Your task to perform on an android device: Open the map Image 0: 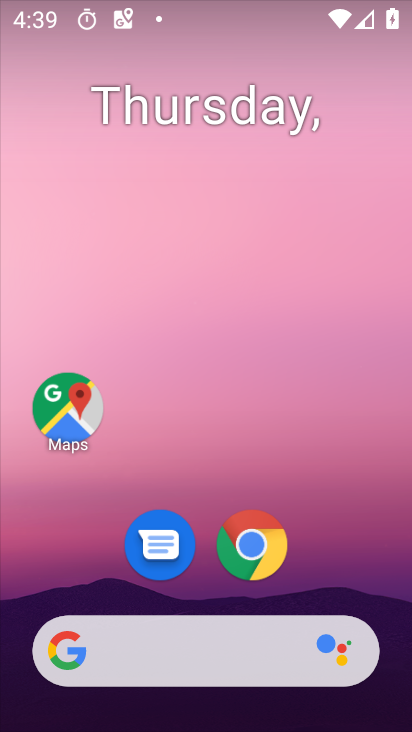
Step 0: drag from (216, 573) to (202, 137)
Your task to perform on an android device: Open the map Image 1: 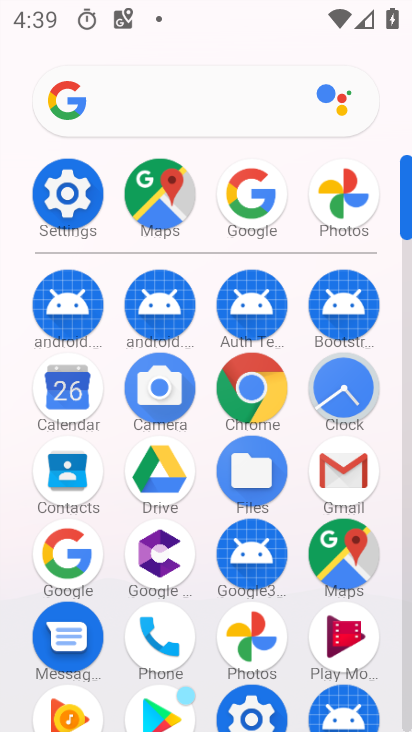
Step 1: click (344, 550)
Your task to perform on an android device: Open the map Image 2: 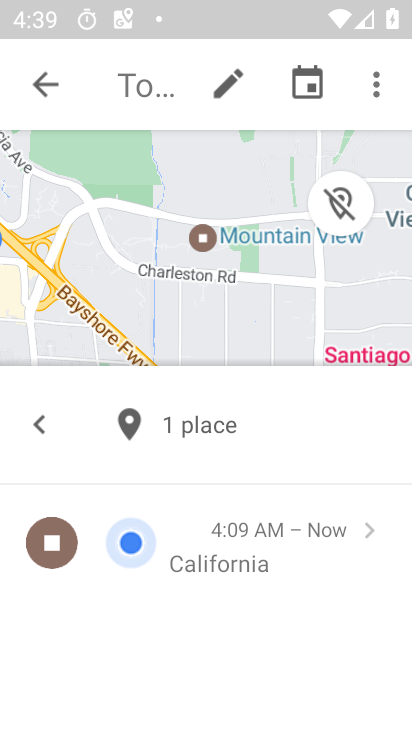
Step 2: task complete